Your task to perform on an android device: search for starred emails in the gmail app Image 0: 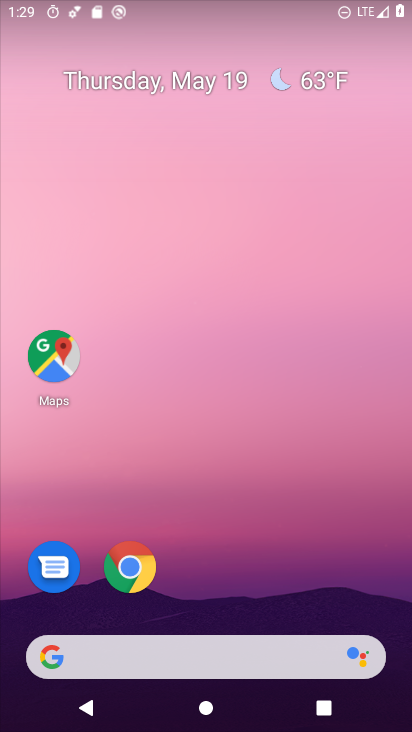
Step 0: drag from (152, 655) to (295, 174)
Your task to perform on an android device: search for starred emails in the gmail app Image 1: 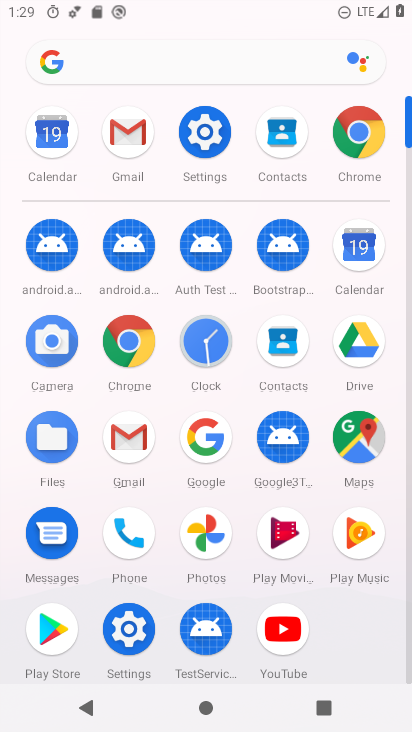
Step 1: click (124, 142)
Your task to perform on an android device: search for starred emails in the gmail app Image 2: 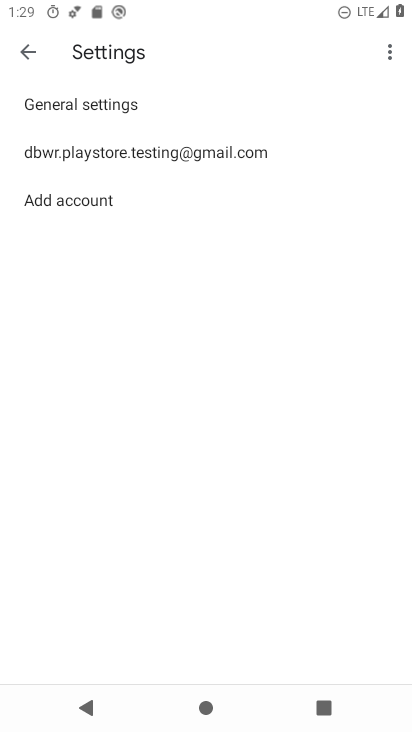
Step 2: click (34, 51)
Your task to perform on an android device: search for starred emails in the gmail app Image 3: 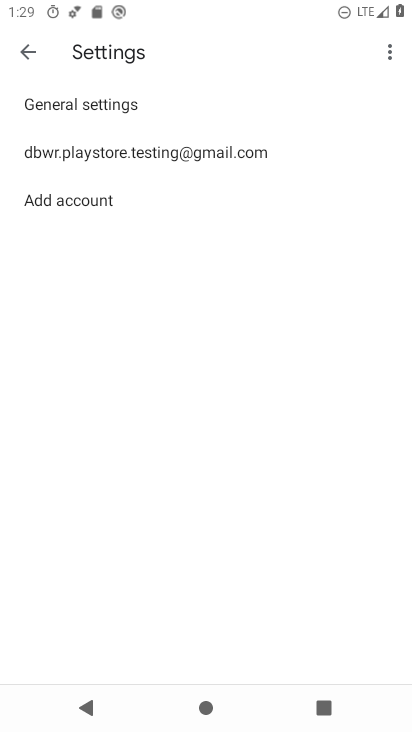
Step 3: click (28, 54)
Your task to perform on an android device: search for starred emails in the gmail app Image 4: 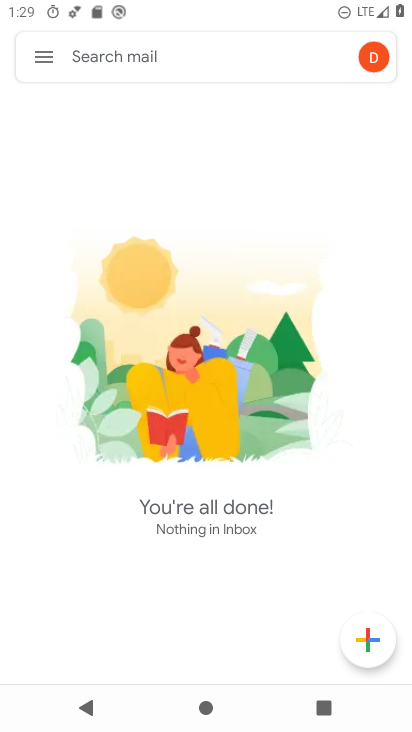
Step 4: click (45, 58)
Your task to perform on an android device: search for starred emails in the gmail app Image 5: 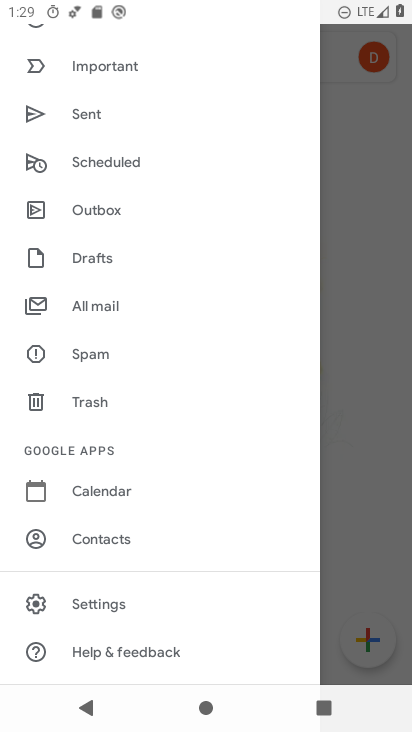
Step 5: drag from (222, 182) to (160, 422)
Your task to perform on an android device: search for starred emails in the gmail app Image 6: 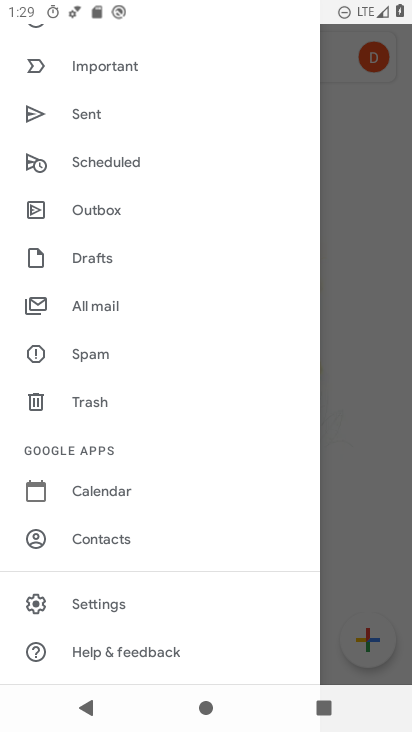
Step 6: drag from (105, 112) to (125, 608)
Your task to perform on an android device: search for starred emails in the gmail app Image 7: 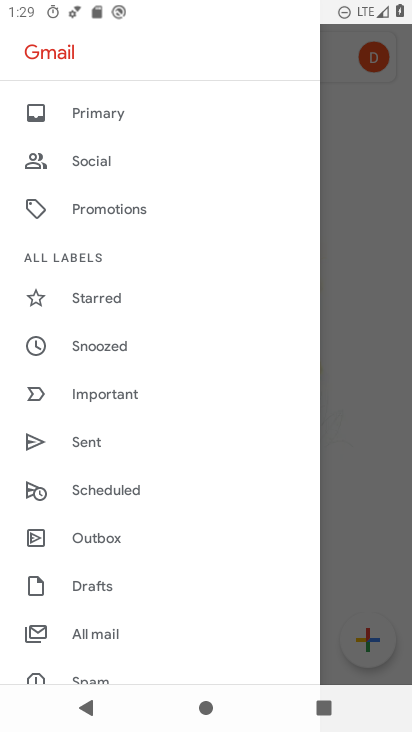
Step 7: click (99, 295)
Your task to perform on an android device: search for starred emails in the gmail app Image 8: 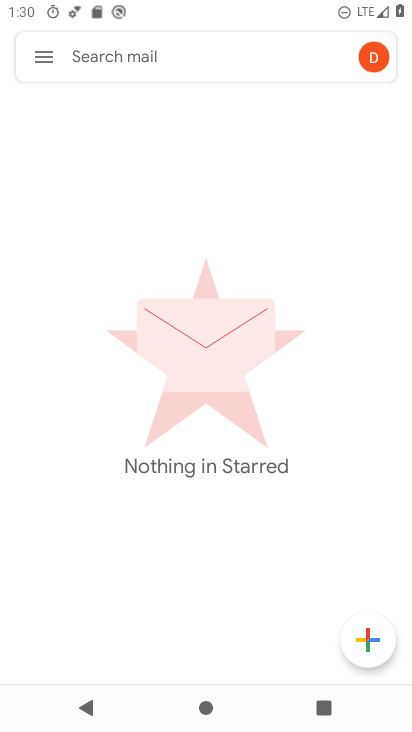
Step 8: task complete